Your task to perform on an android device: delete the emails in spam in the gmail app Image 0: 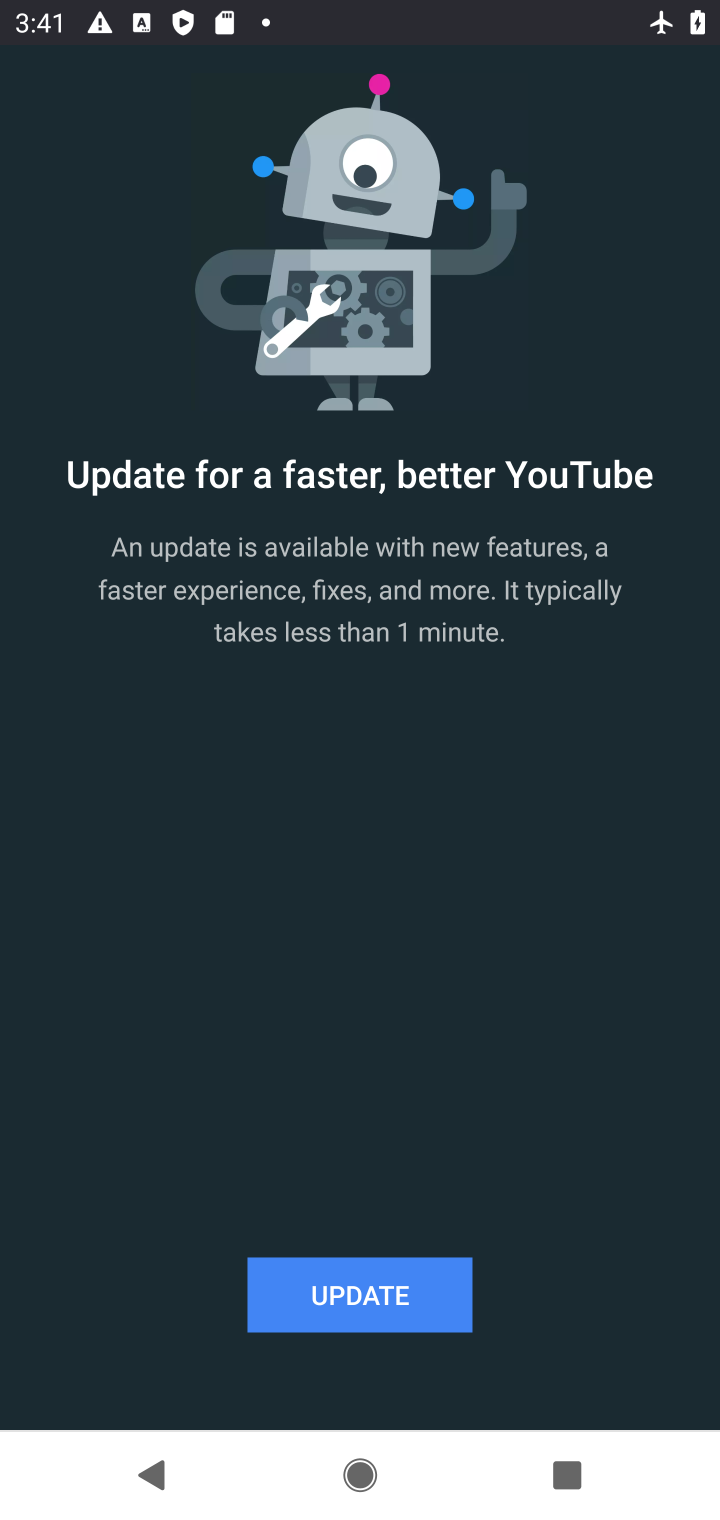
Step 0: press home button
Your task to perform on an android device: delete the emails in spam in the gmail app Image 1: 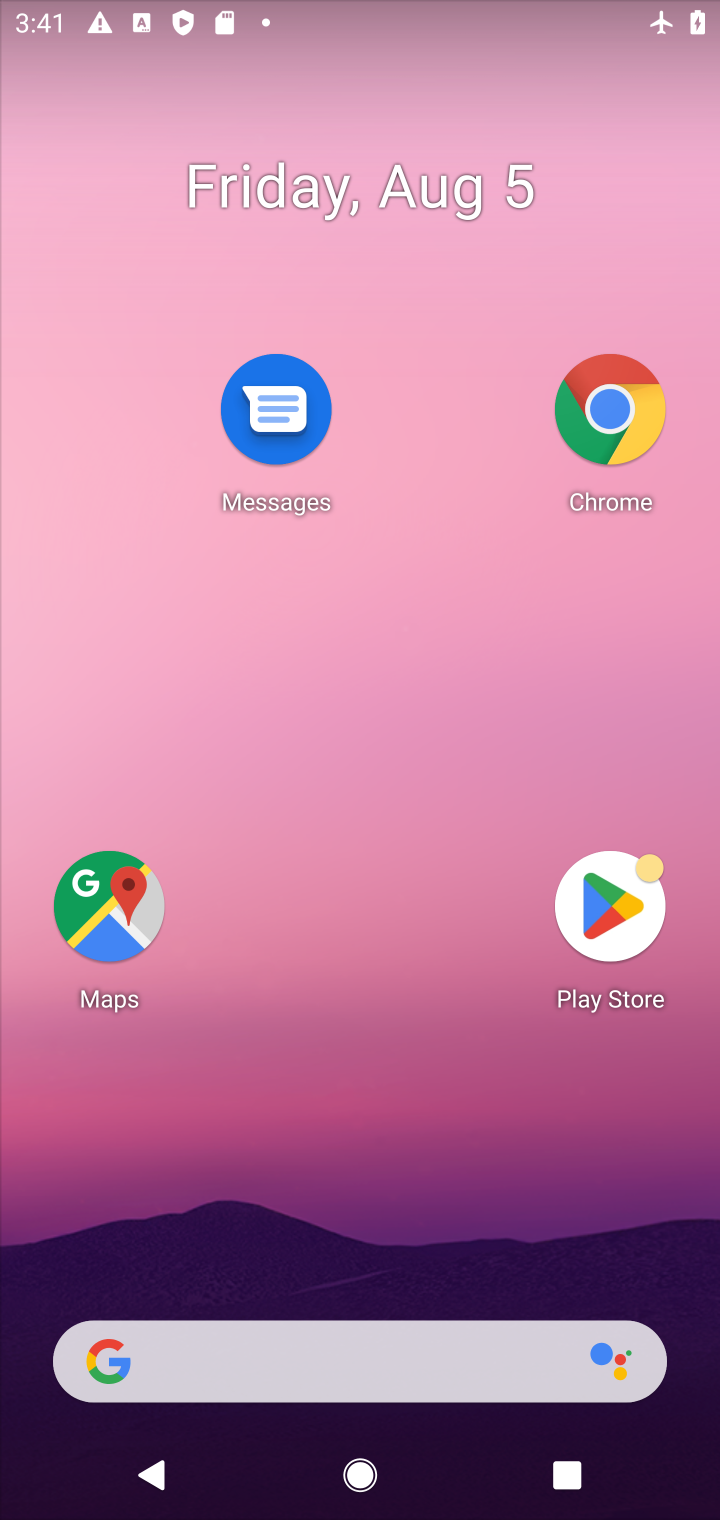
Step 1: drag from (344, 1107) to (344, 505)
Your task to perform on an android device: delete the emails in spam in the gmail app Image 2: 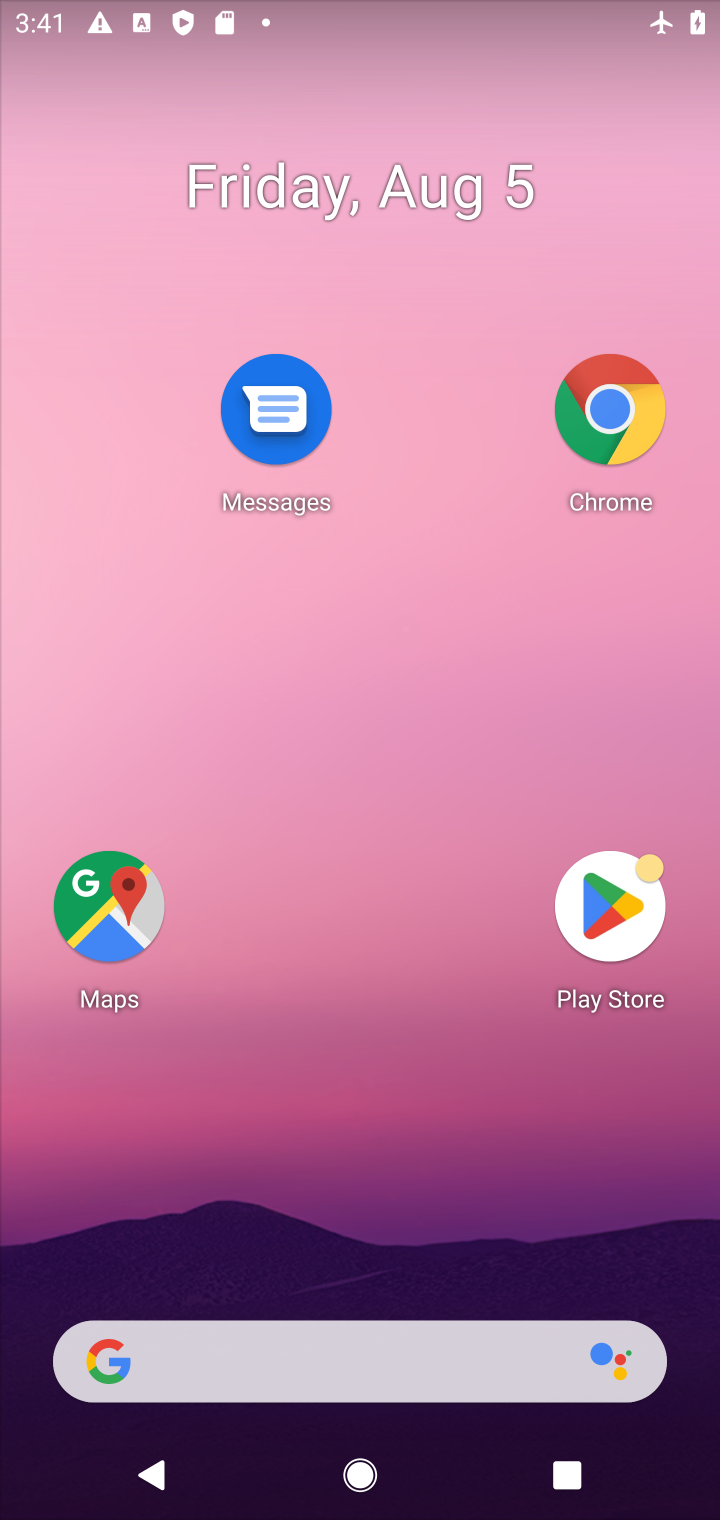
Step 2: drag from (404, 923) to (404, 331)
Your task to perform on an android device: delete the emails in spam in the gmail app Image 3: 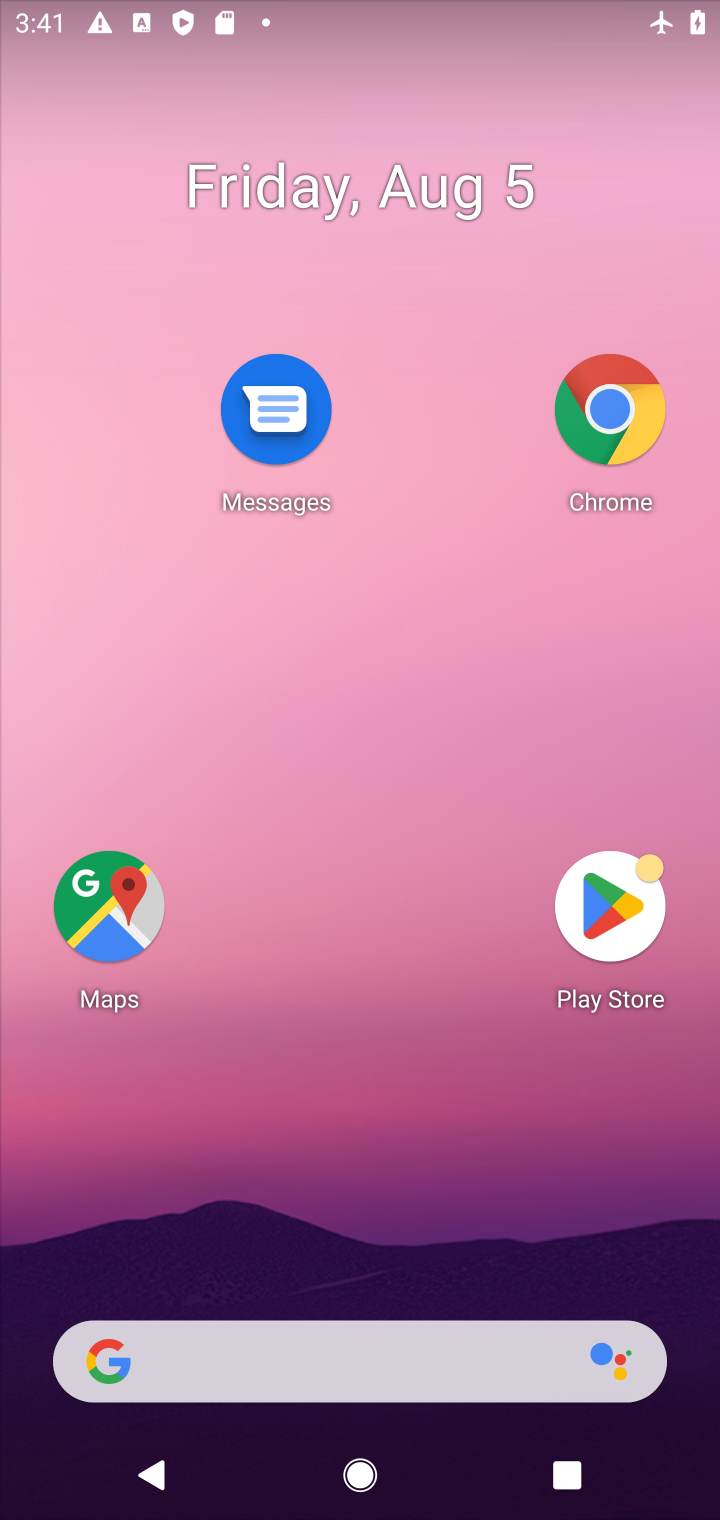
Step 3: drag from (374, 1015) to (357, 423)
Your task to perform on an android device: delete the emails in spam in the gmail app Image 4: 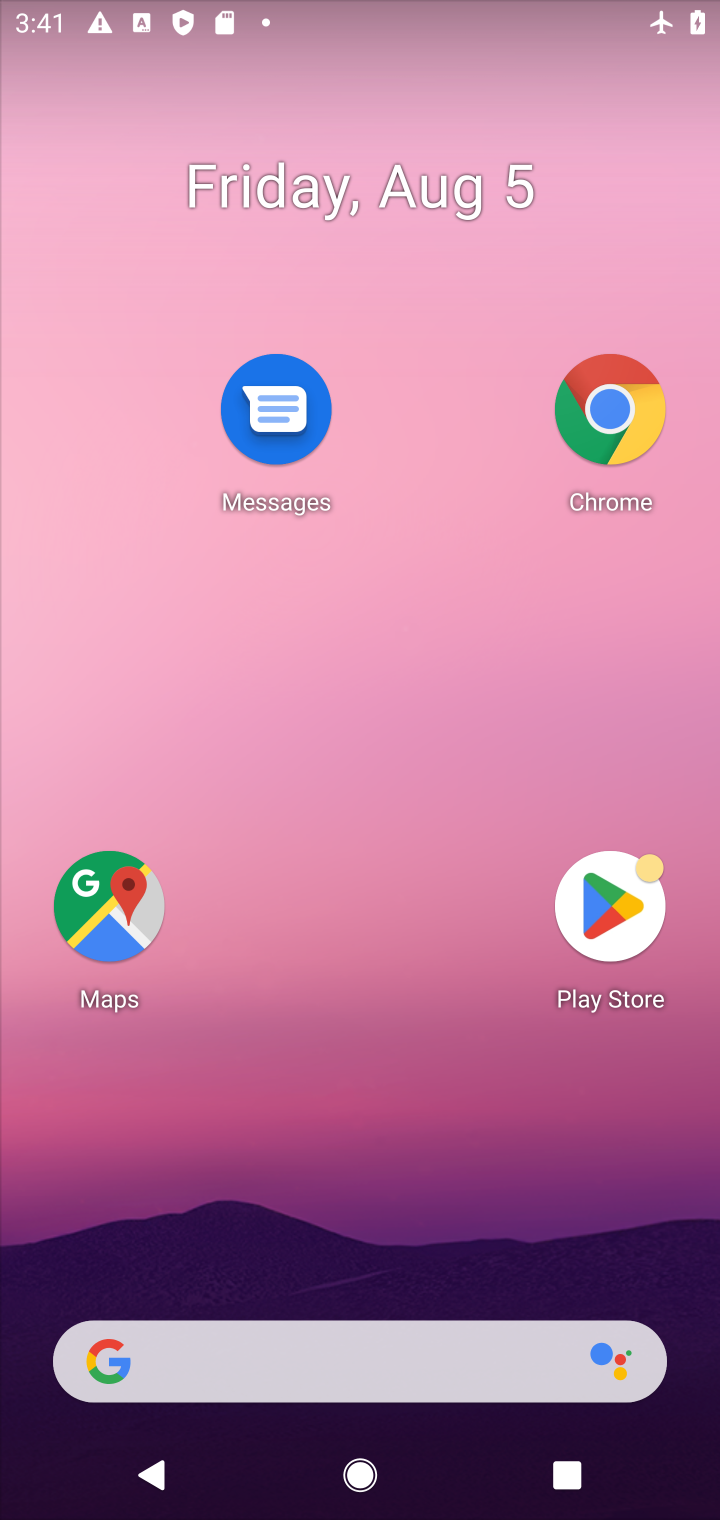
Step 4: drag from (335, 1299) to (347, 570)
Your task to perform on an android device: delete the emails in spam in the gmail app Image 5: 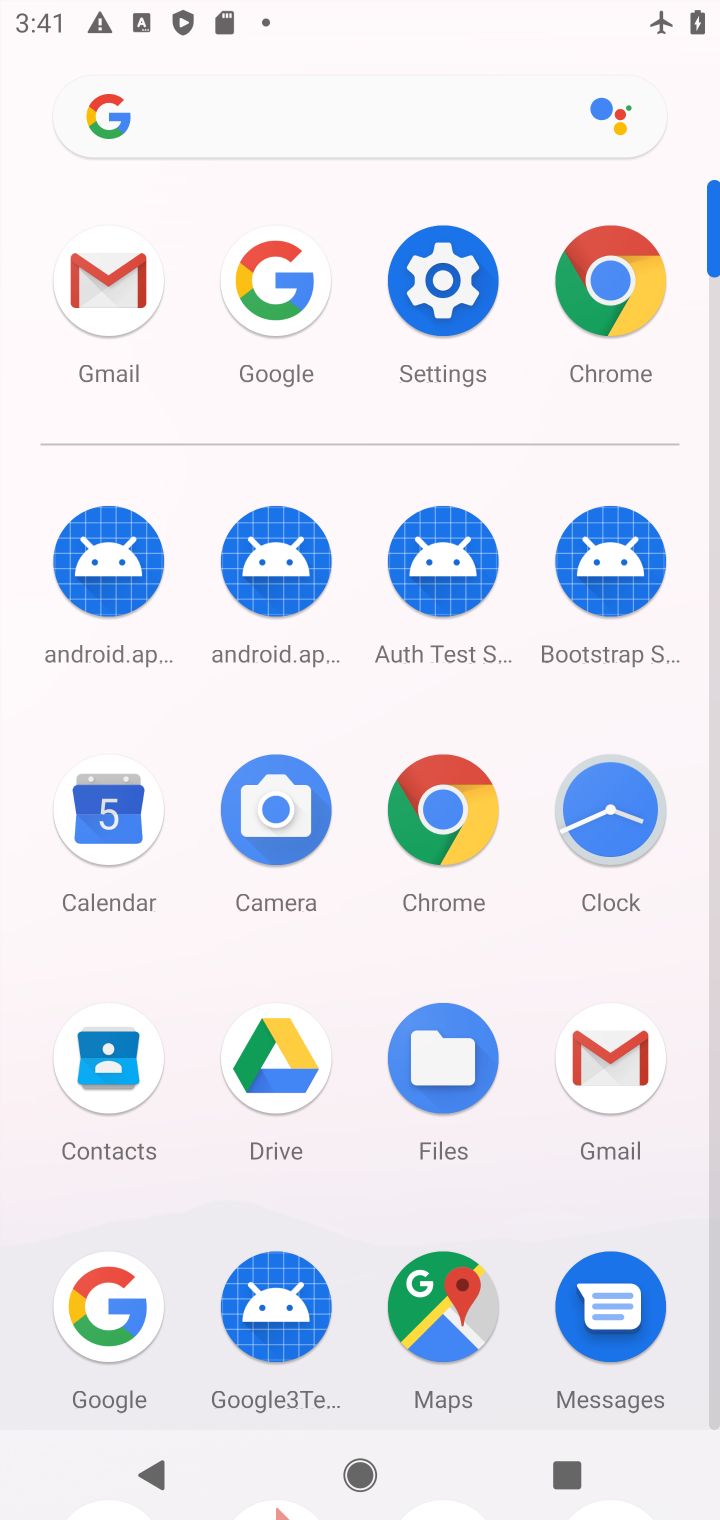
Step 5: click (131, 326)
Your task to perform on an android device: delete the emails in spam in the gmail app Image 6: 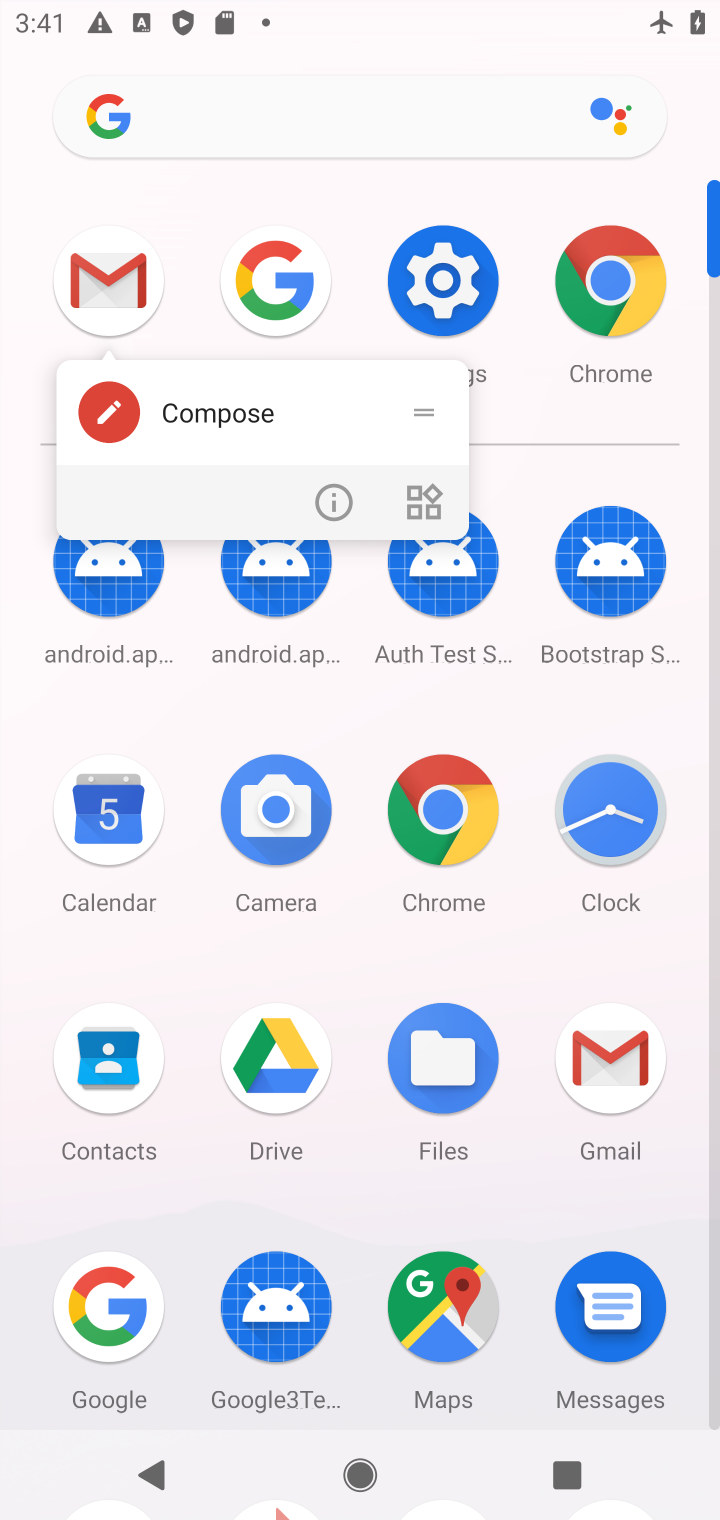
Step 6: click (124, 301)
Your task to perform on an android device: delete the emails in spam in the gmail app Image 7: 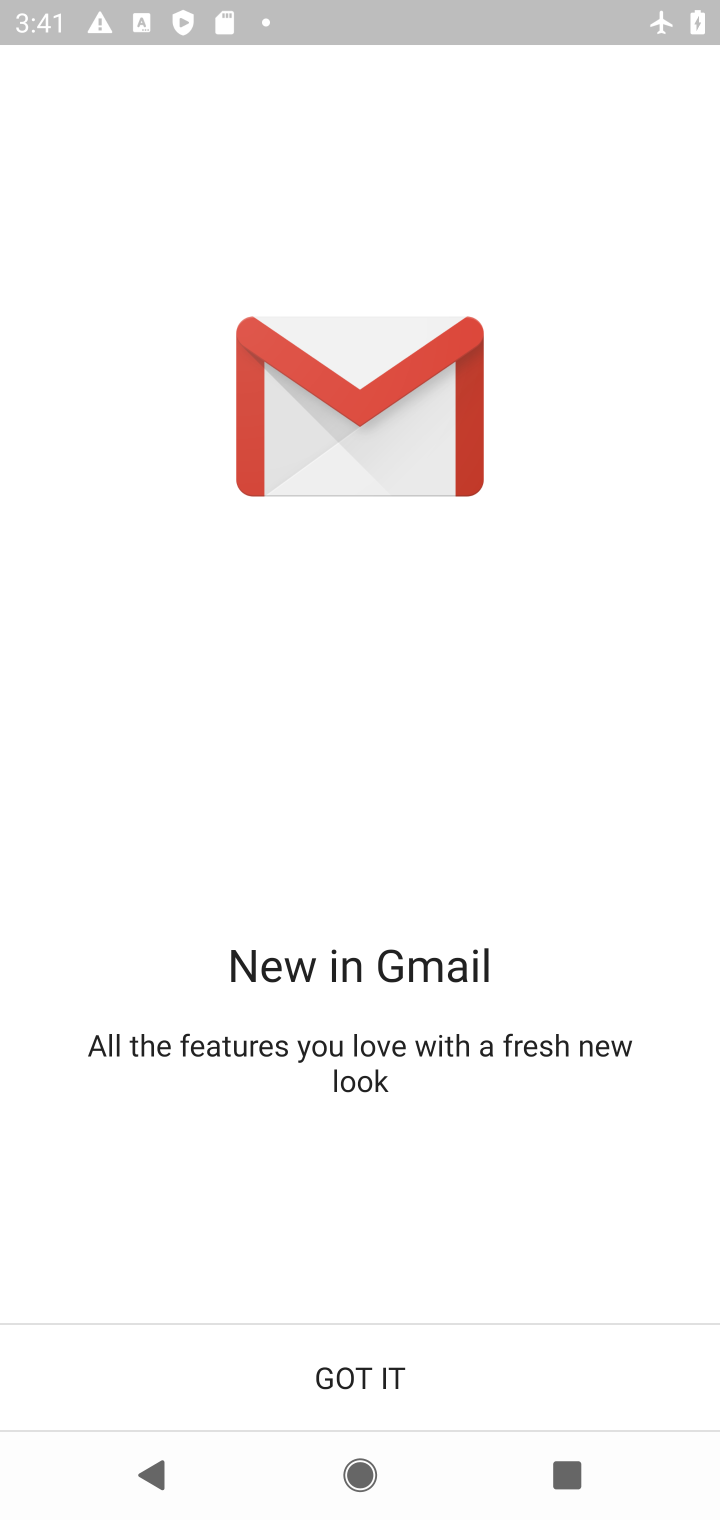
Step 7: click (402, 1341)
Your task to perform on an android device: delete the emails in spam in the gmail app Image 8: 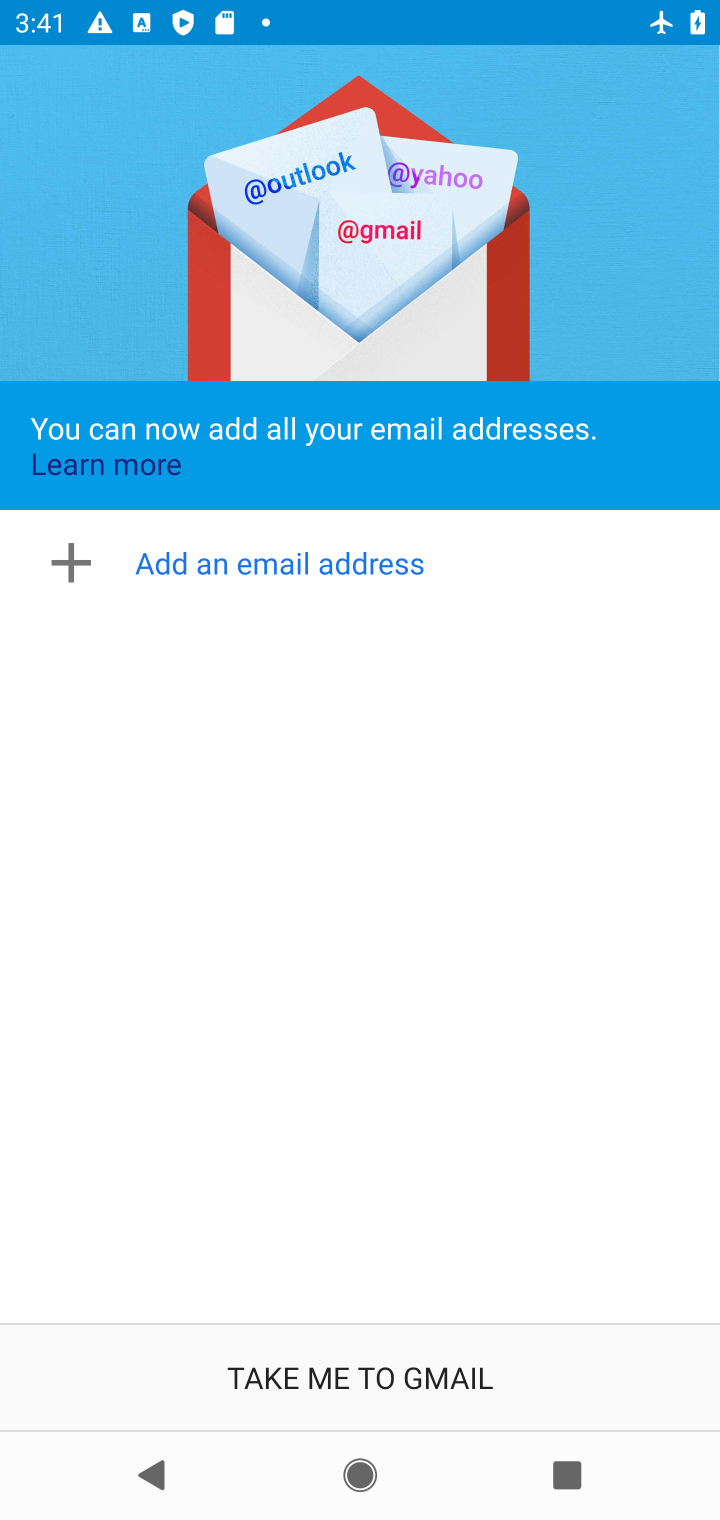
Step 8: click (402, 1341)
Your task to perform on an android device: delete the emails in spam in the gmail app Image 9: 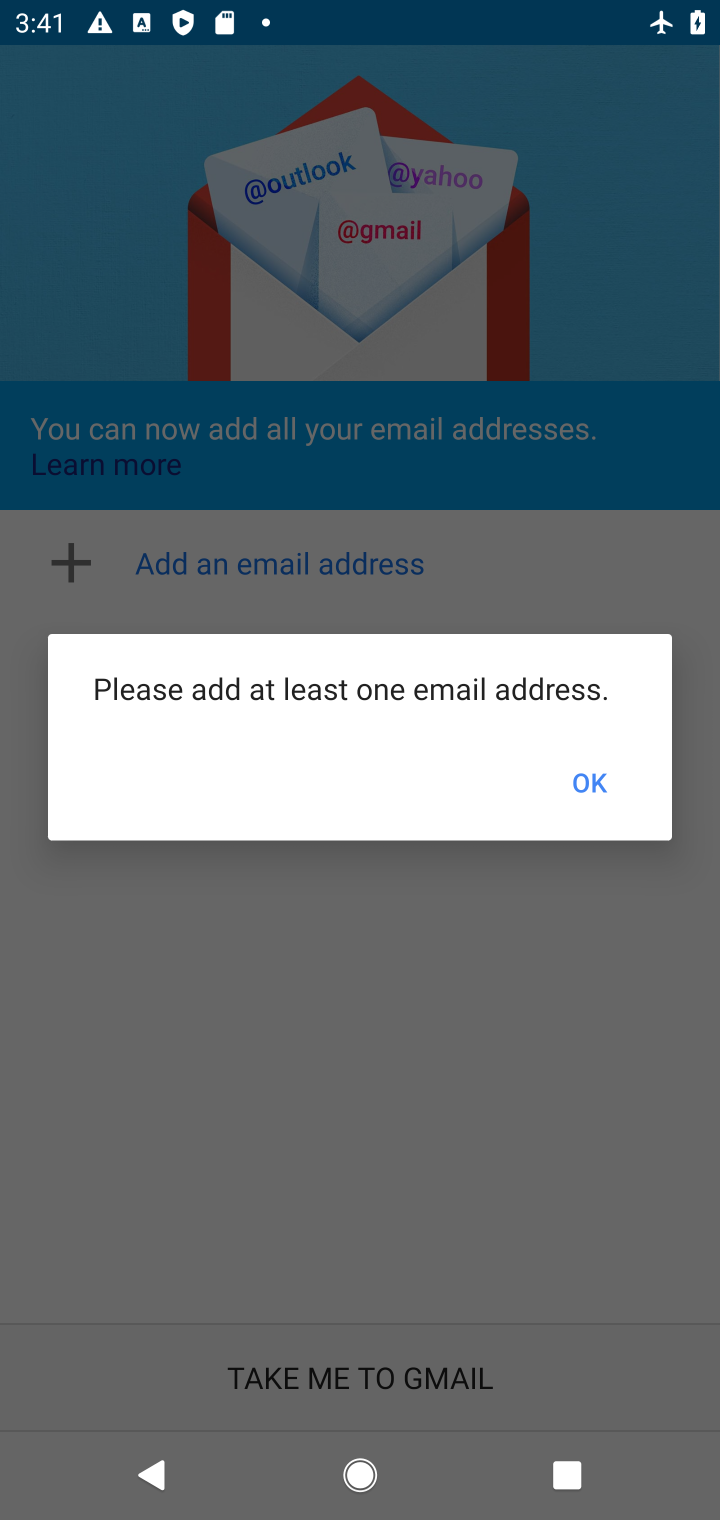
Step 9: task complete